Your task to perform on an android device: Turn on the flashlight Image 0: 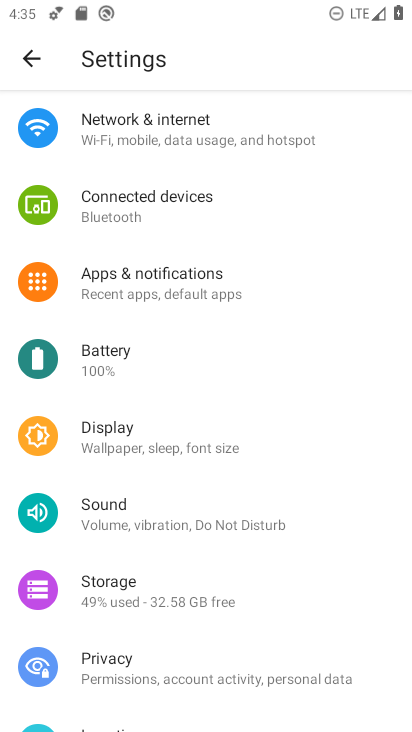
Step 0: press home button
Your task to perform on an android device: Turn on the flashlight Image 1: 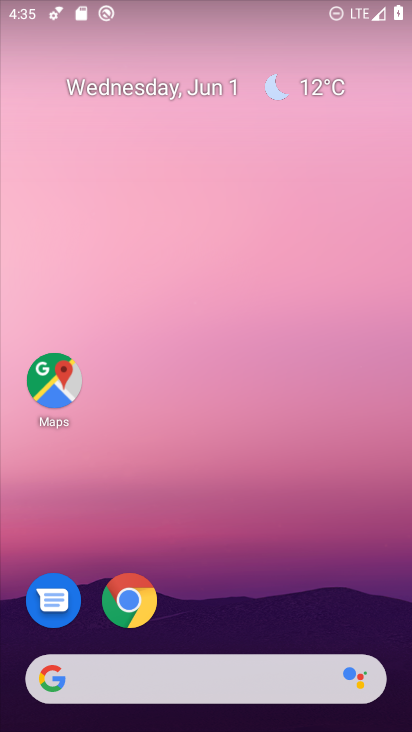
Step 1: drag from (238, 22) to (242, 497)
Your task to perform on an android device: Turn on the flashlight Image 2: 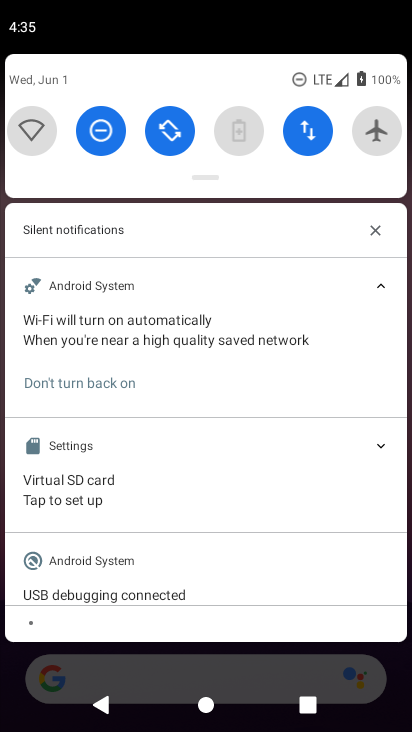
Step 2: drag from (209, 173) to (216, 489)
Your task to perform on an android device: Turn on the flashlight Image 3: 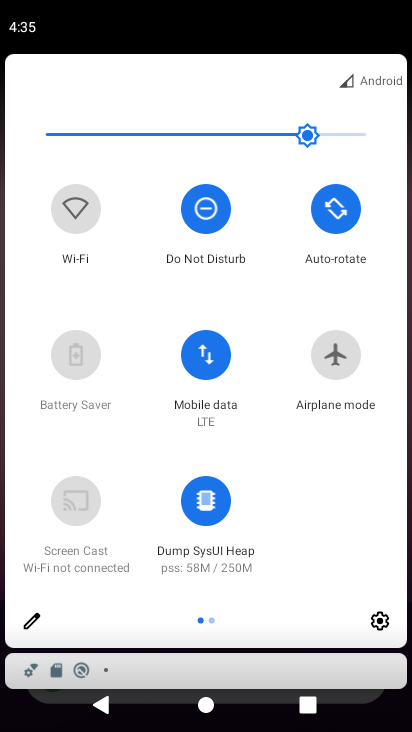
Step 3: click (30, 621)
Your task to perform on an android device: Turn on the flashlight Image 4: 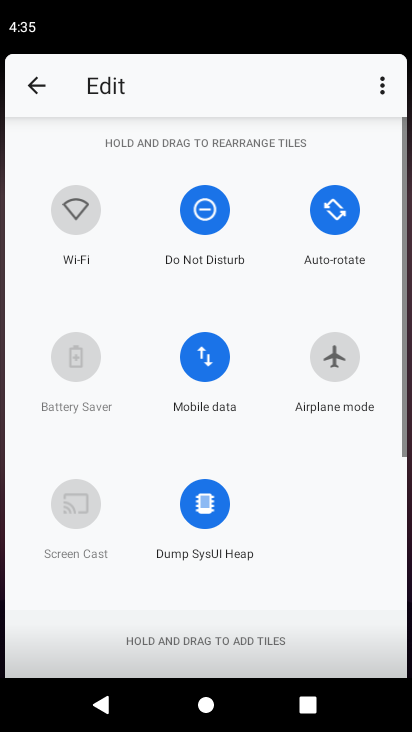
Step 4: task complete